Your task to perform on an android device: Go to Maps Image 0: 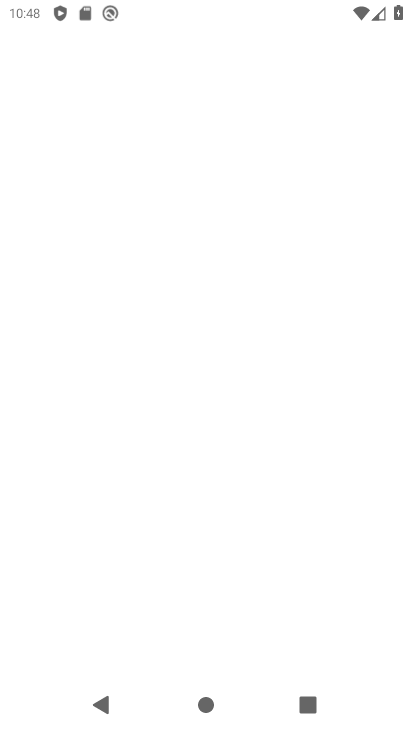
Step 0: press home button
Your task to perform on an android device: Go to Maps Image 1: 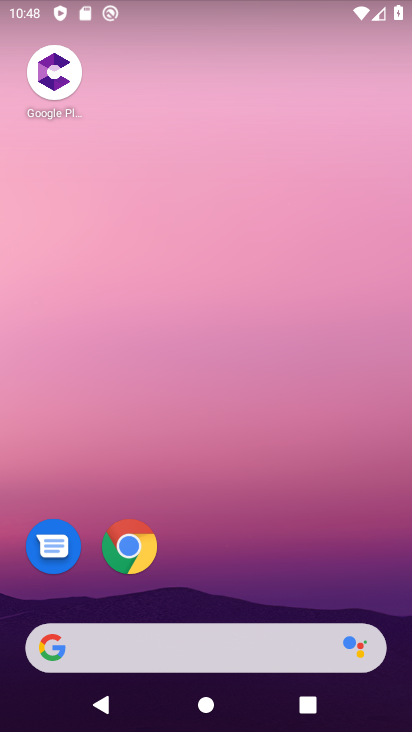
Step 1: drag from (360, 569) to (363, 69)
Your task to perform on an android device: Go to Maps Image 2: 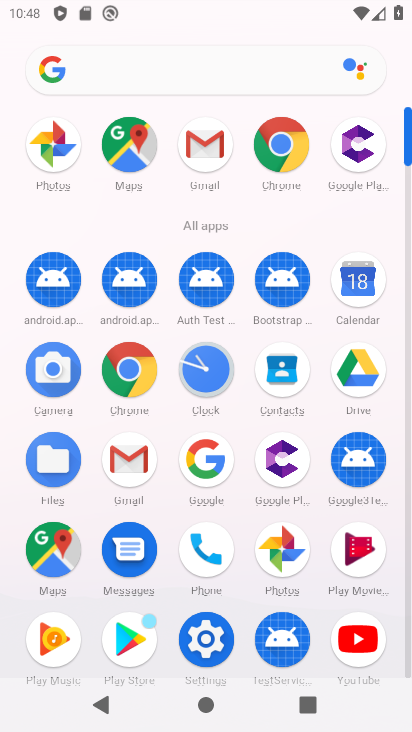
Step 2: click (53, 557)
Your task to perform on an android device: Go to Maps Image 3: 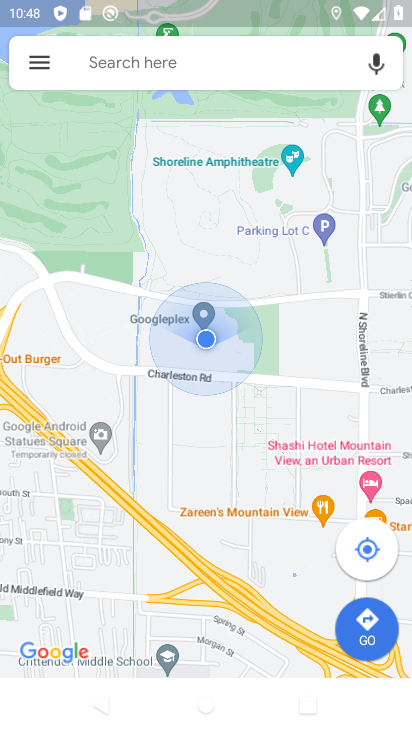
Step 3: task complete